Your task to perform on an android device: toggle airplane mode Image 0: 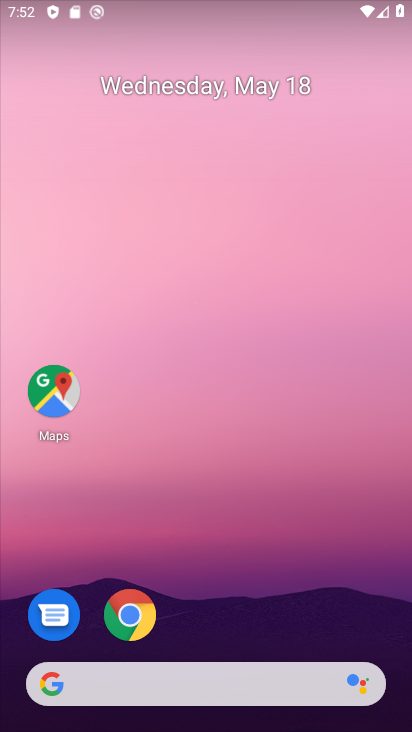
Step 0: drag from (292, 624) to (268, 103)
Your task to perform on an android device: toggle airplane mode Image 1: 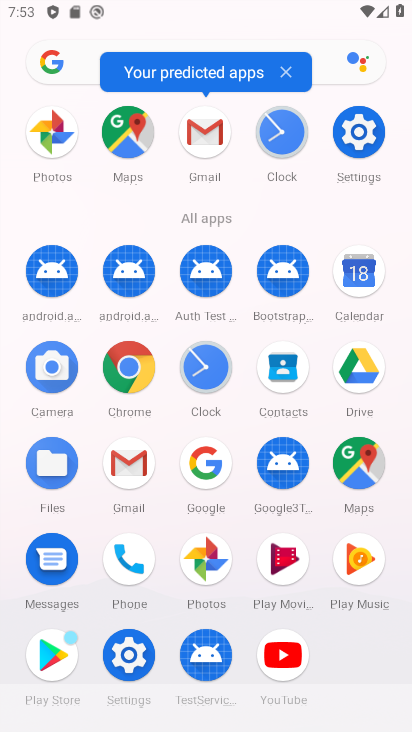
Step 1: click (355, 135)
Your task to perform on an android device: toggle airplane mode Image 2: 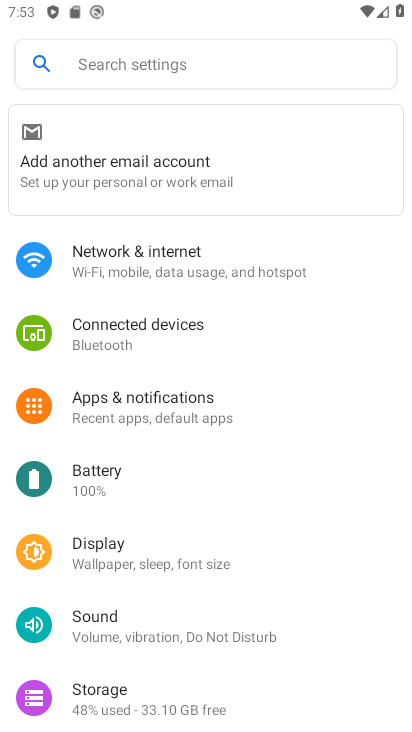
Step 2: click (242, 265)
Your task to perform on an android device: toggle airplane mode Image 3: 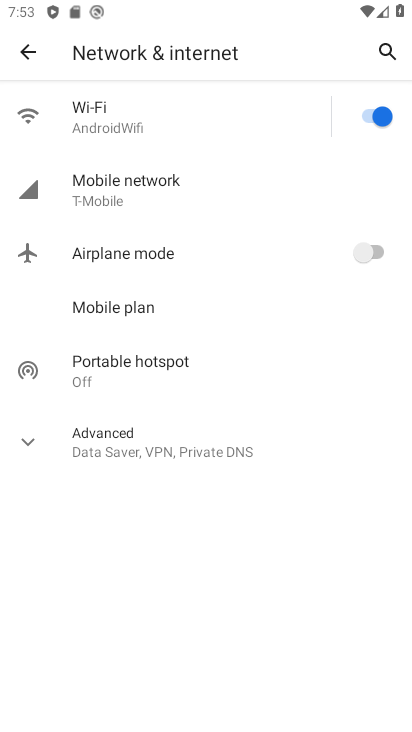
Step 3: click (377, 248)
Your task to perform on an android device: toggle airplane mode Image 4: 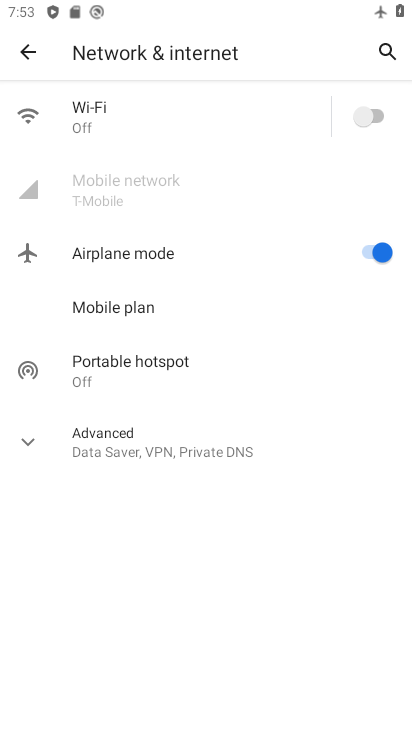
Step 4: task complete